Your task to perform on an android device: Go to privacy settings Image 0: 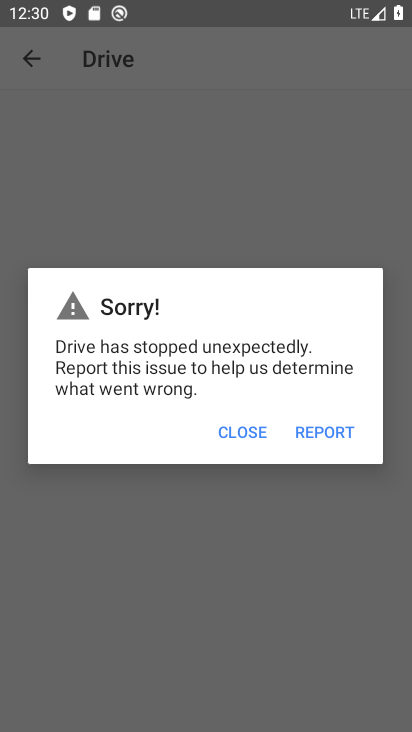
Step 0: click (131, 137)
Your task to perform on an android device: Go to privacy settings Image 1: 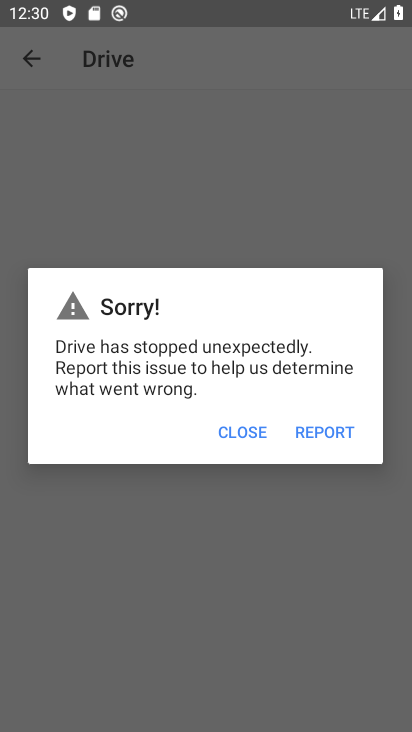
Step 1: click (246, 432)
Your task to perform on an android device: Go to privacy settings Image 2: 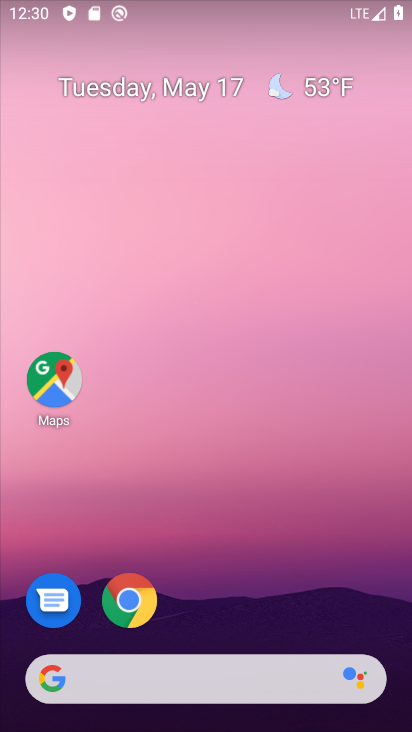
Step 2: drag from (183, 421) to (129, 46)
Your task to perform on an android device: Go to privacy settings Image 3: 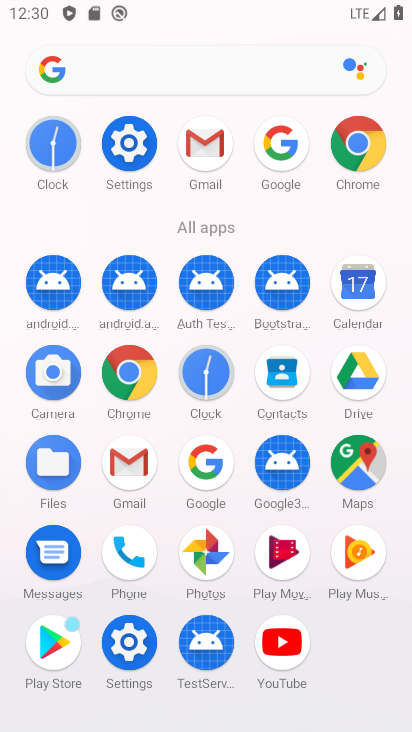
Step 3: click (127, 153)
Your task to perform on an android device: Go to privacy settings Image 4: 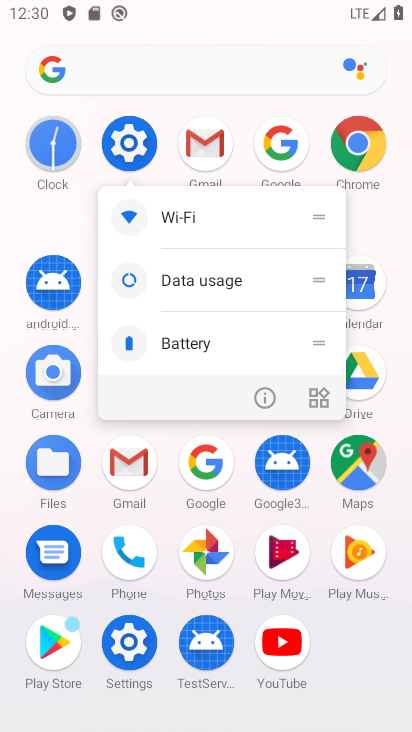
Step 4: click (121, 154)
Your task to perform on an android device: Go to privacy settings Image 5: 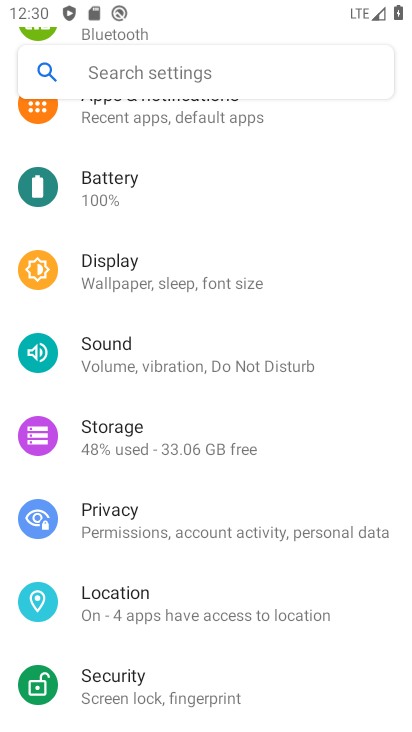
Step 5: drag from (150, 167) to (169, 718)
Your task to perform on an android device: Go to privacy settings Image 6: 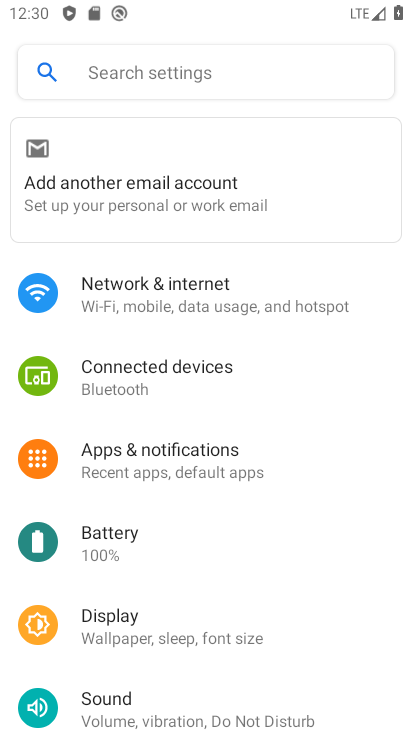
Step 6: click (132, 294)
Your task to perform on an android device: Go to privacy settings Image 7: 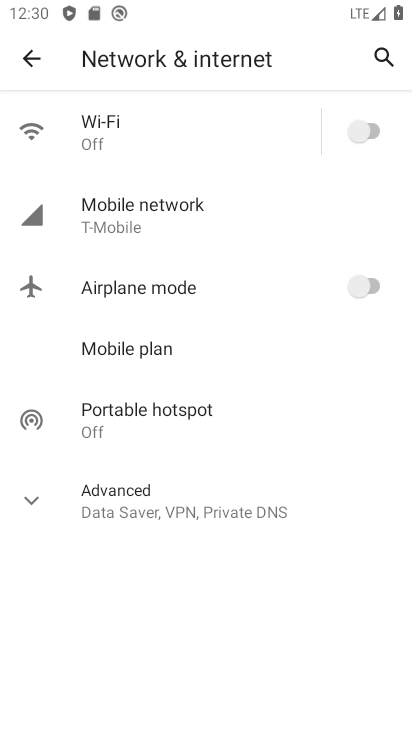
Step 7: click (39, 69)
Your task to perform on an android device: Go to privacy settings Image 8: 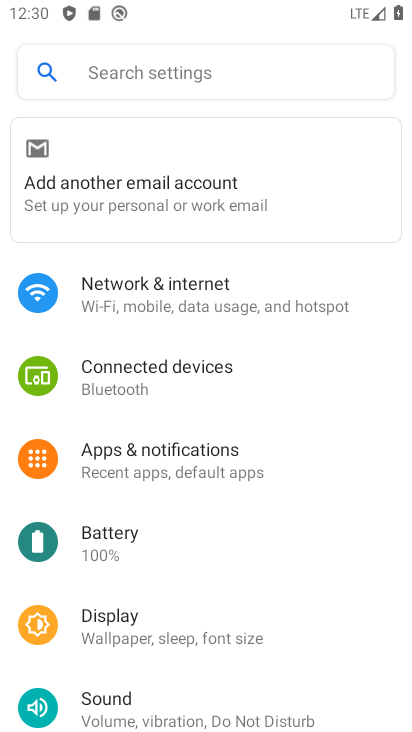
Step 8: drag from (178, 650) to (258, 0)
Your task to perform on an android device: Go to privacy settings Image 9: 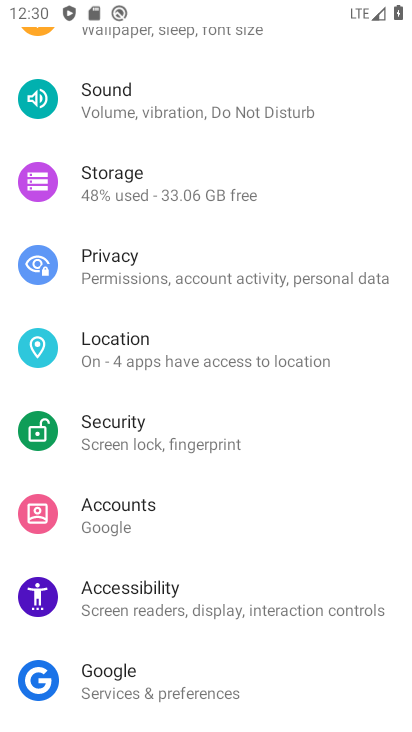
Step 9: click (128, 266)
Your task to perform on an android device: Go to privacy settings Image 10: 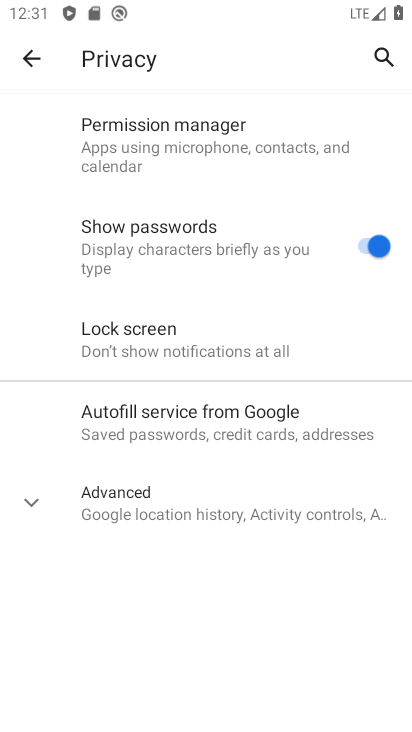
Step 10: task complete